Your task to perform on an android device: change text size in settings app Image 0: 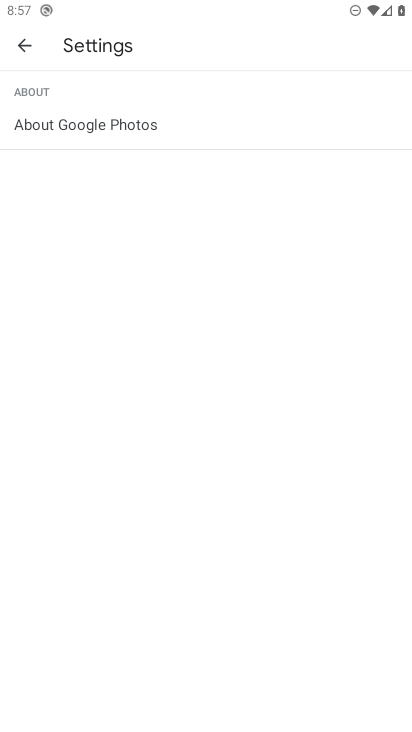
Step 0: press home button
Your task to perform on an android device: change text size in settings app Image 1: 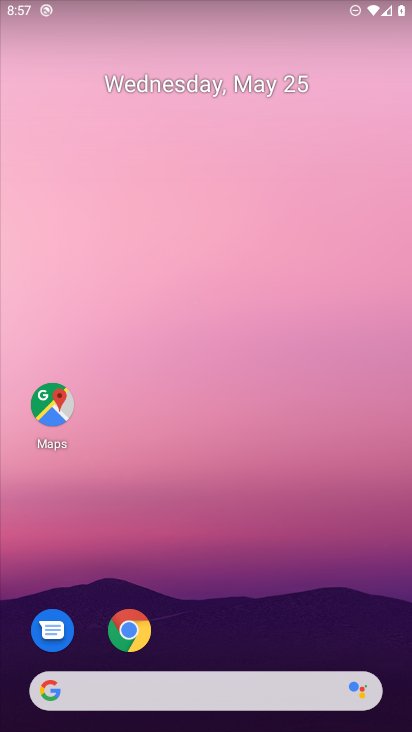
Step 1: drag from (147, 670) to (277, 123)
Your task to perform on an android device: change text size in settings app Image 2: 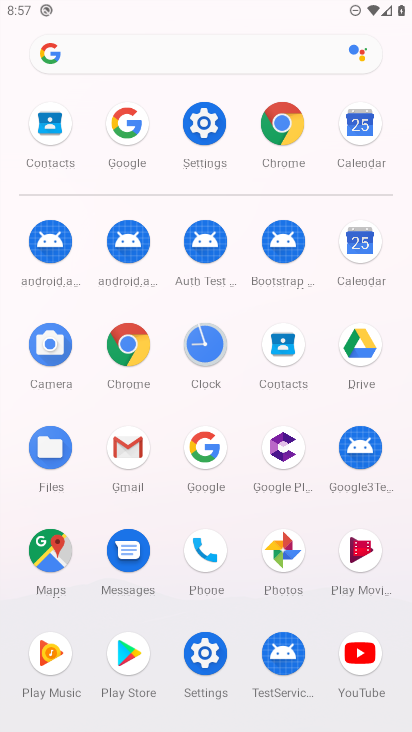
Step 2: click (195, 140)
Your task to perform on an android device: change text size in settings app Image 3: 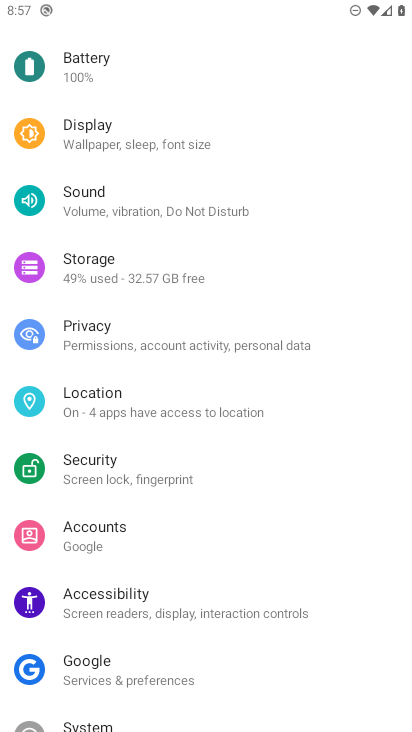
Step 3: drag from (121, 683) to (165, 251)
Your task to perform on an android device: change text size in settings app Image 4: 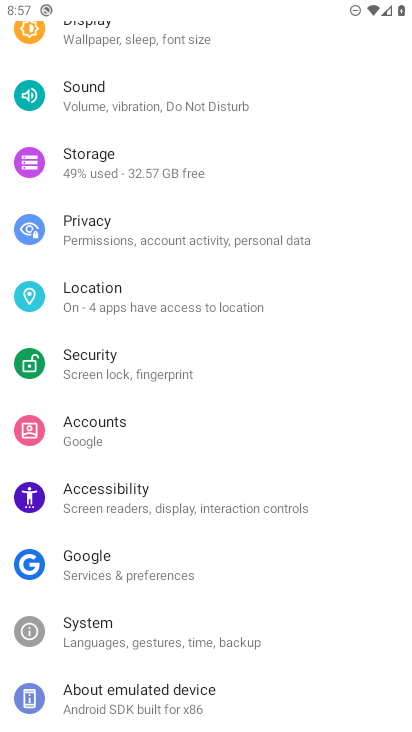
Step 4: click (119, 506)
Your task to perform on an android device: change text size in settings app Image 5: 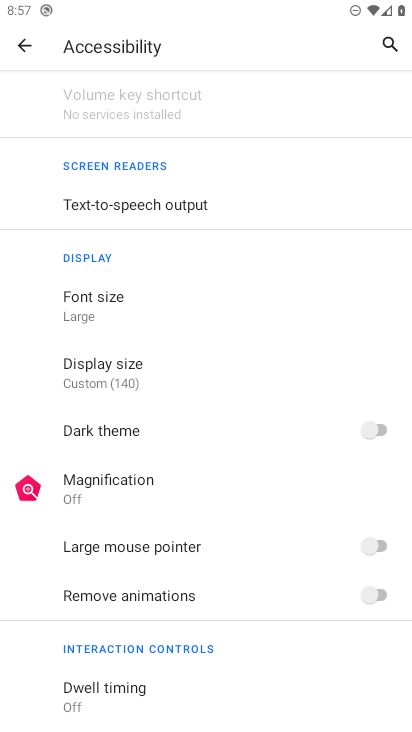
Step 5: click (101, 294)
Your task to perform on an android device: change text size in settings app Image 6: 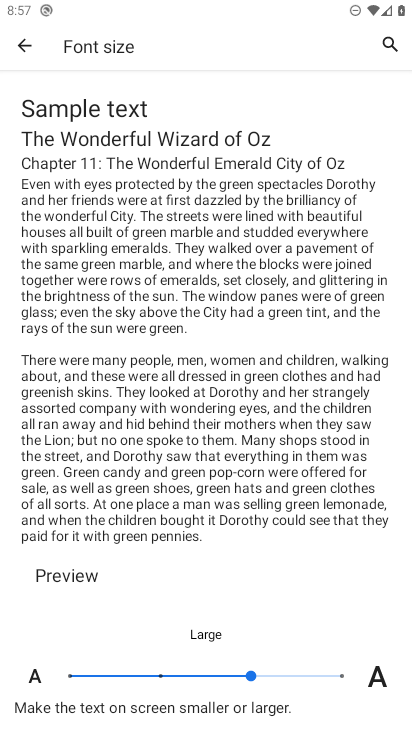
Step 6: click (171, 664)
Your task to perform on an android device: change text size in settings app Image 7: 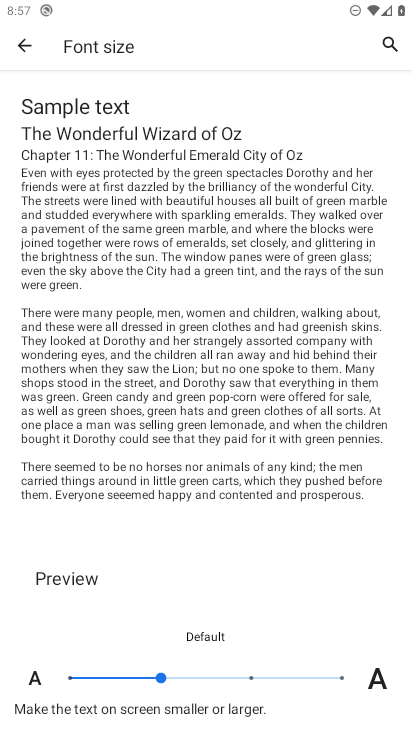
Step 7: task complete